Your task to perform on an android device: Open the Play Movies app and select the watchlist tab. Image 0: 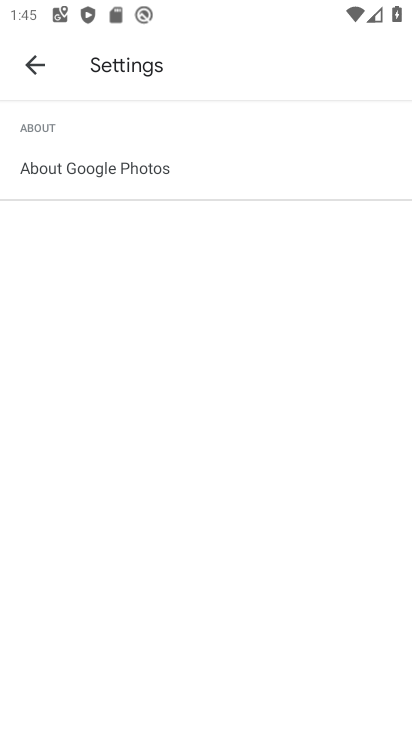
Step 0: press home button
Your task to perform on an android device: Open the Play Movies app and select the watchlist tab. Image 1: 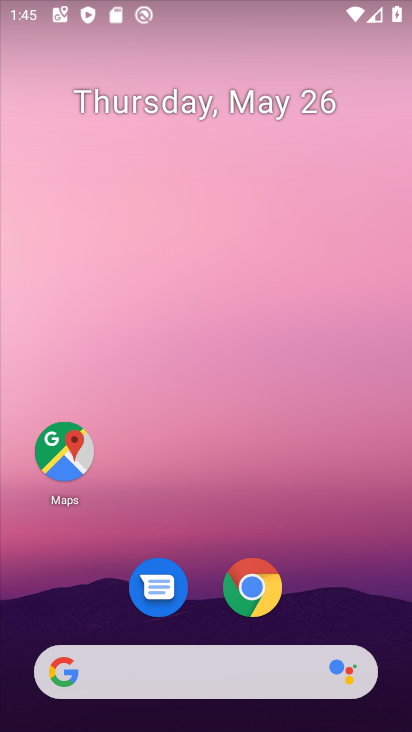
Step 1: drag from (348, 552) to (359, 123)
Your task to perform on an android device: Open the Play Movies app and select the watchlist tab. Image 2: 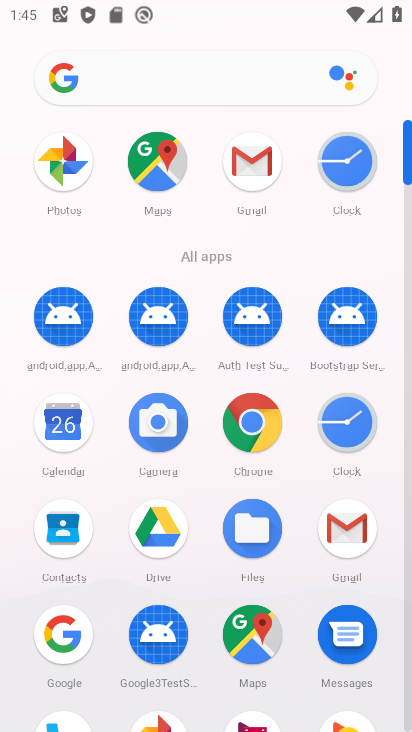
Step 2: drag from (299, 556) to (322, 201)
Your task to perform on an android device: Open the Play Movies app and select the watchlist tab. Image 3: 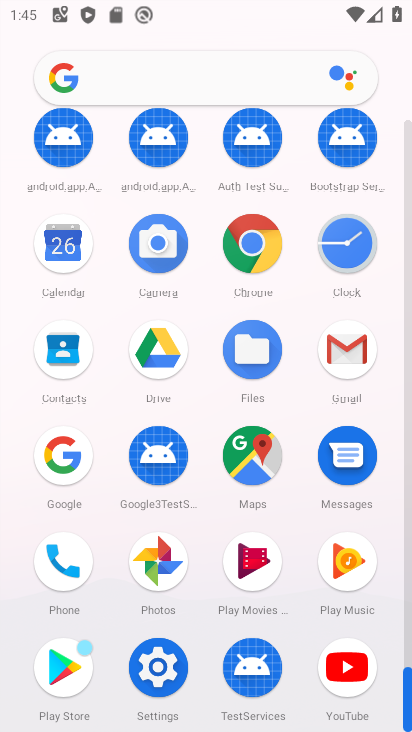
Step 3: click (271, 570)
Your task to perform on an android device: Open the Play Movies app and select the watchlist tab. Image 4: 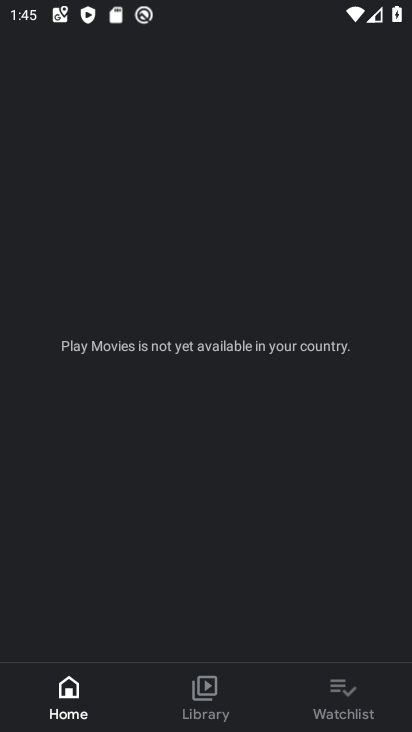
Step 4: click (326, 673)
Your task to perform on an android device: Open the Play Movies app and select the watchlist tab. Image 5: 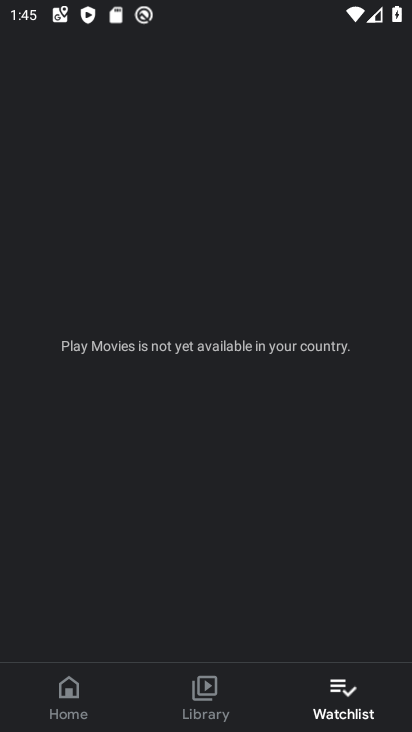
Step 5: task complete